Your task to perform on an android device: Do I have any events today? Image 0: 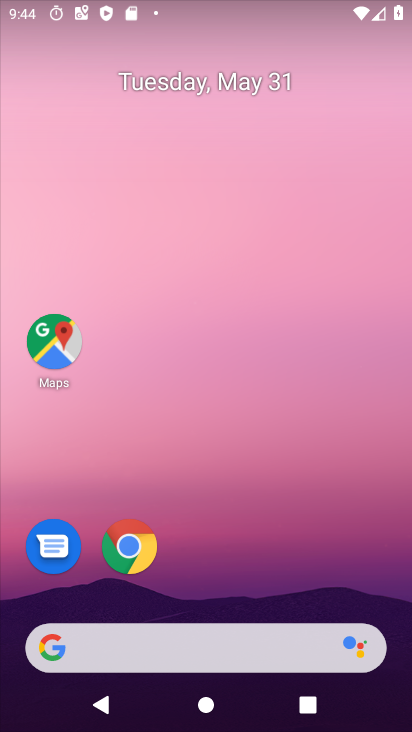
Step 0: drag from (272, 551) to (135, 0)
Your task to perform on an android device: Do I have any events today? Image 1: 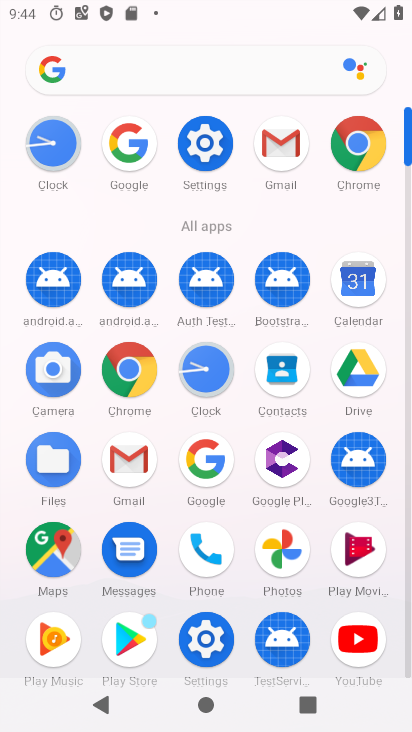
Step 1: click (164, 303)
Your task to perform on an android device: Do I have any events today? Image 2: 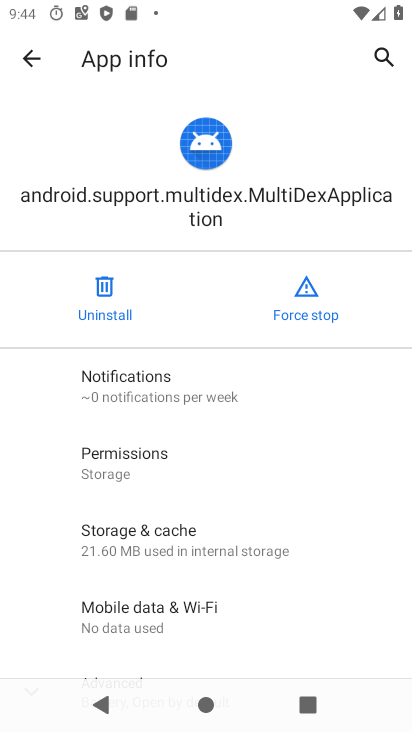
Step 2: click (117, 701)
Your task to perform on an android device: Do I have any events today? Image 3: 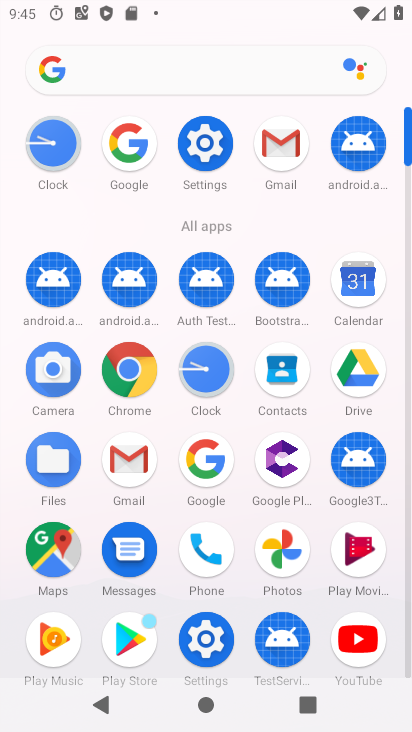
Step 3: click (351, 280)
Your task to perform on an android device: Do I have any events today? Image 4: 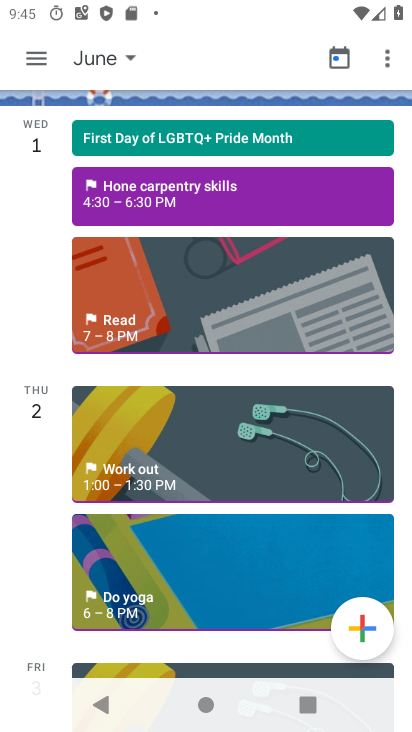
Step 4: task complete